Your task to perform on an android device: Open location settings Image 0: 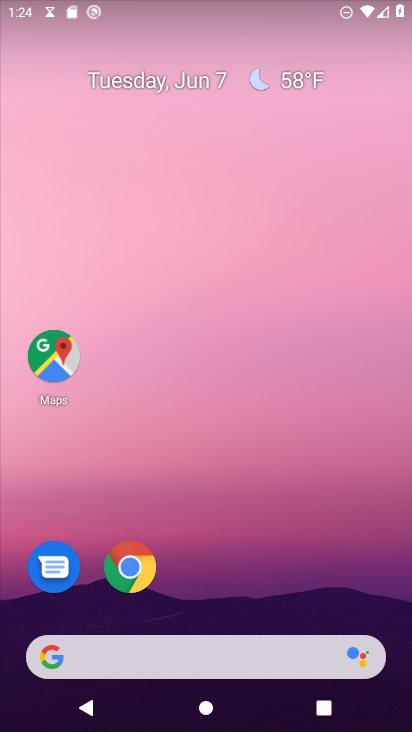
Step 0: drag from (2, 235) to (407, 357)
Your task to perform on an android device: Open location settings Image 1: 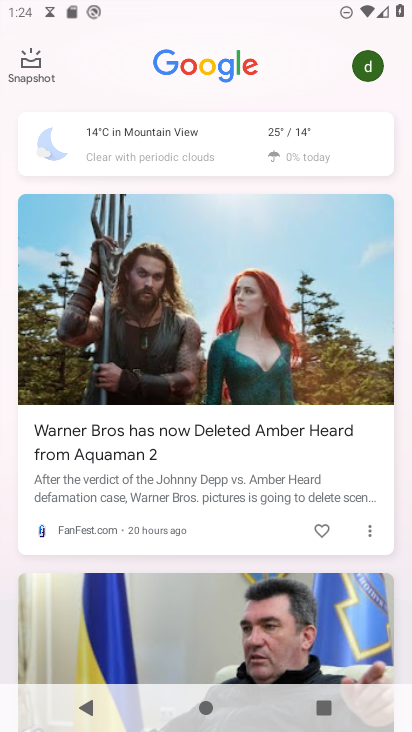
Step 1: drag from (229, 619) to (197, 298)
Your task to perform on an android device: Open location settings Image 2: 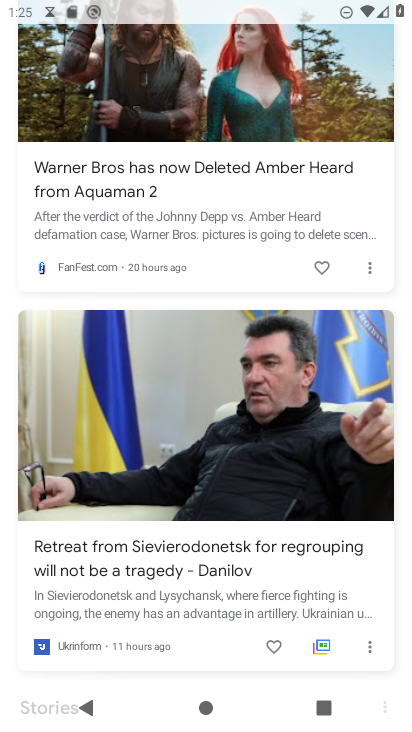
Step 2: drag from (172, 542) to (192, 276)
Your task to perform on an android device: Open location settings Image 3: 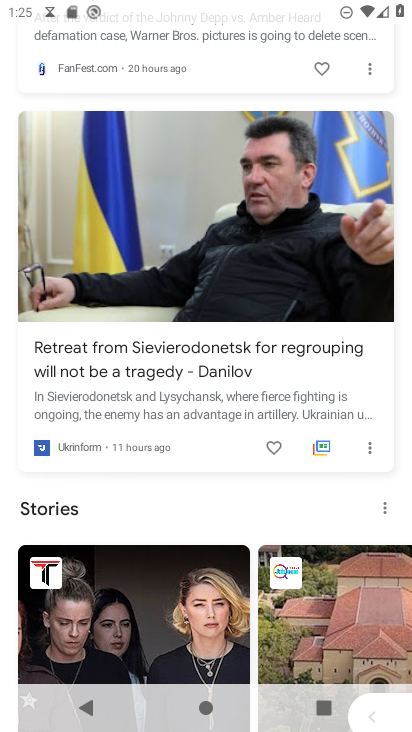
Step 3: press home button
Your task to perform on an android device: Open location settings Image 4: 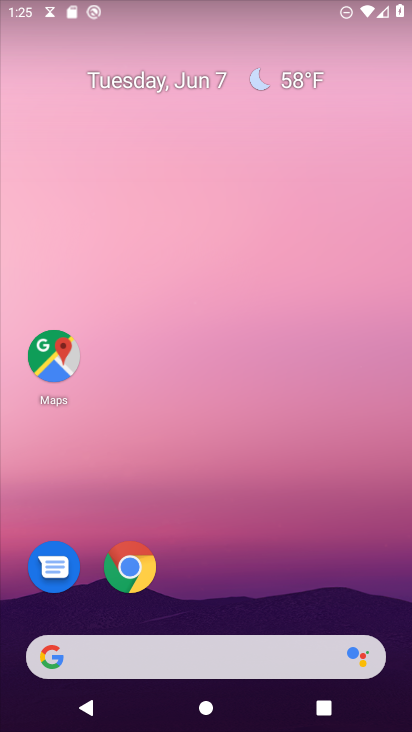
Step 4: drag from (381, 688) to (371, 290)
Your task to perform on an android device: Open location settings Image 5: 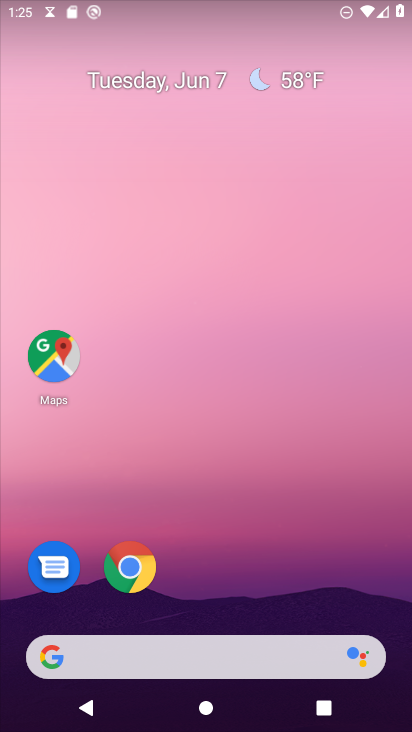
Step 5: drag from (398, 714) to (389, 272)
Your task to perform on an android device: Open location settings Image 6: 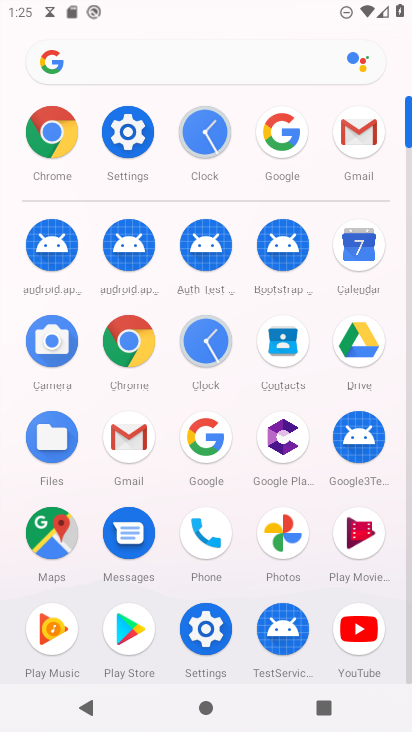
Step 6: click (203, 627)
Your task to perform on an android device: Open location settings Image 7: 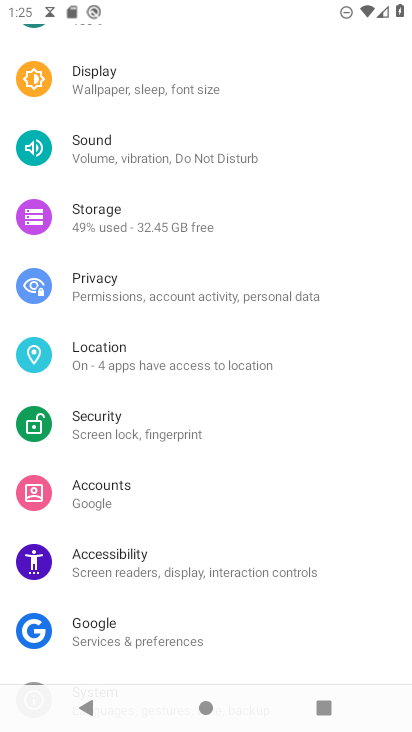
Step 7: click (114, 356)
Your task to perform on an android device: Open location settings Image 8: 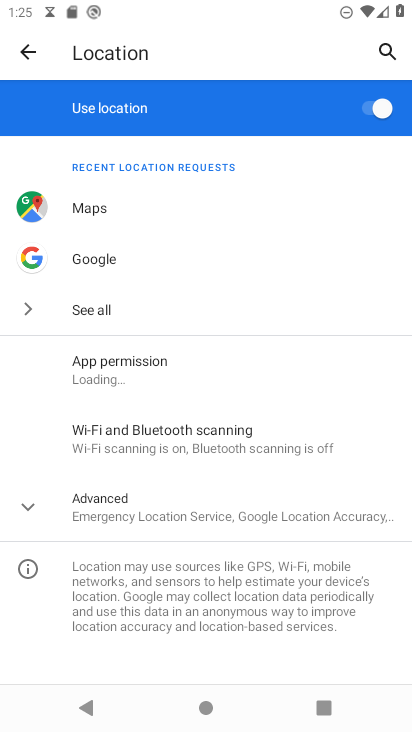
Step 8: drag from (249, 617) to (254, 325)
Your task to perform on an android device: Open location settings Image 9: 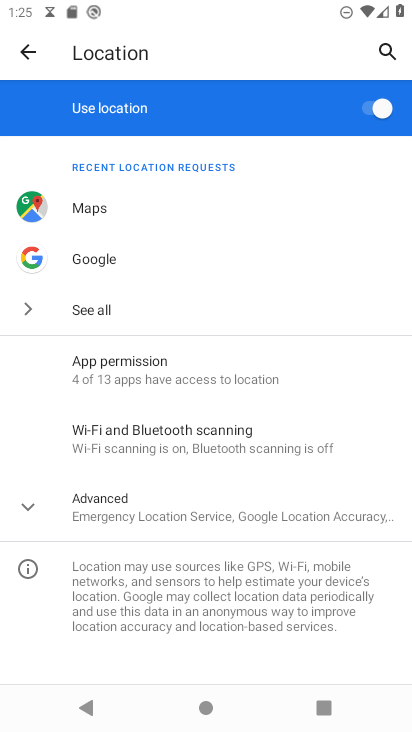
Step 9: click (38, 508)
Your task to perform on an android device: Open location settings Image 10: 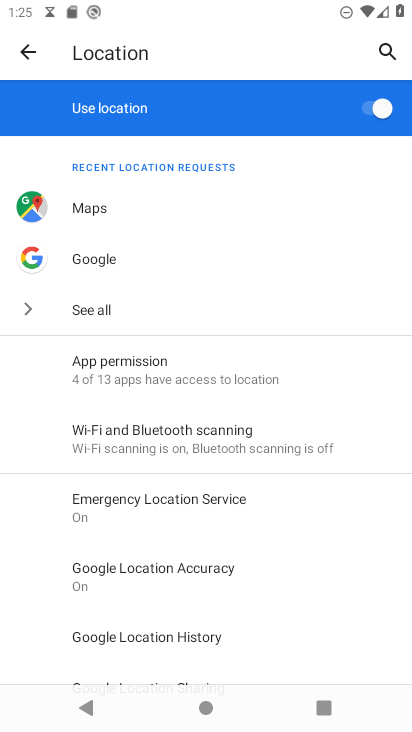
Step 10: task complete